Your task to perform on an android device: snooze an email in the gmail app Image 0: 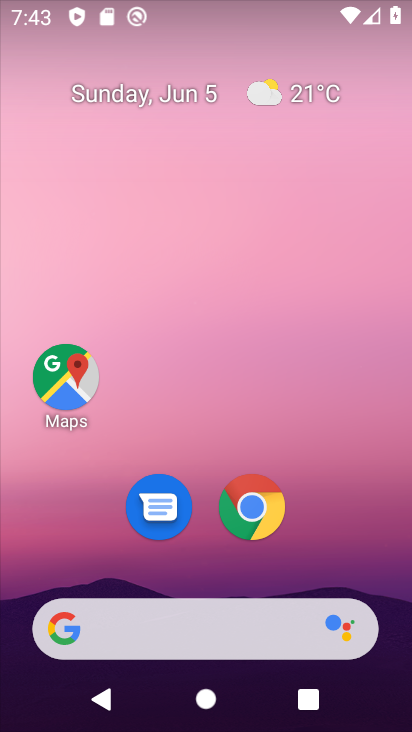
Step 0: drag from (349, 521) to (299, 25)
Your task to perform on an android device: snooze an email in the gmail app Image 1: 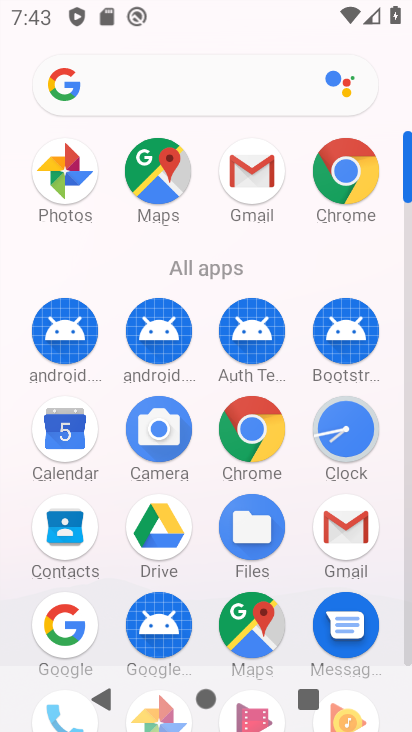
Step 1: click (346, 422)
Your task to perform on an android device: snooze an email in the gmail app Image 2: 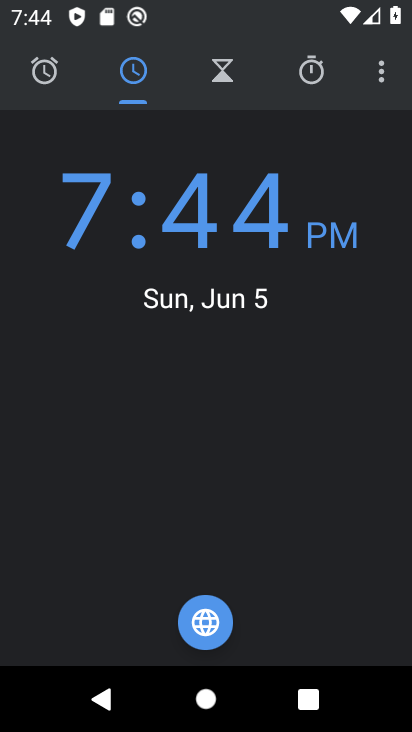
Step 2: press back button
Your task to perform on an android device: snooze an email in the gmail app Image 3: 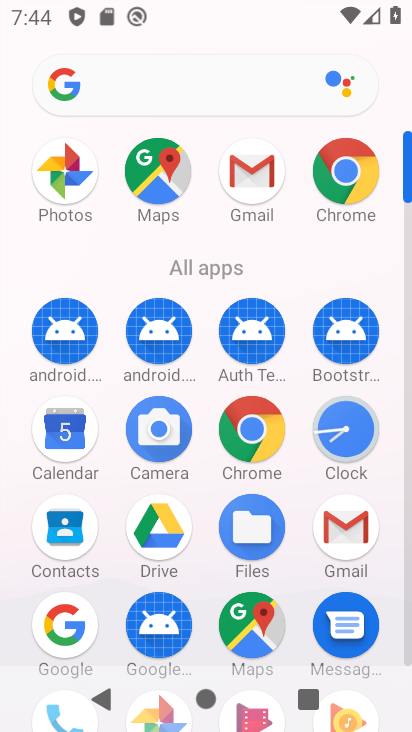
Step 3: click (252, 162)
Your task to perform on an android device: snooze an email in the gmail app Image 4: 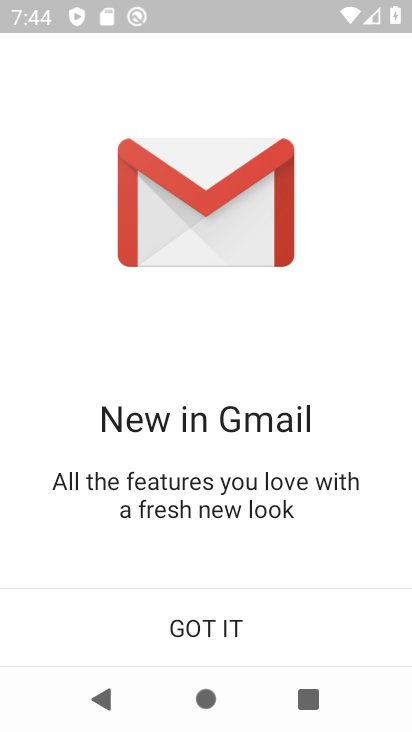
Step 4: click (208, 602)
Your task to perform on an android device: snooze an email in the gmail app Image 5: 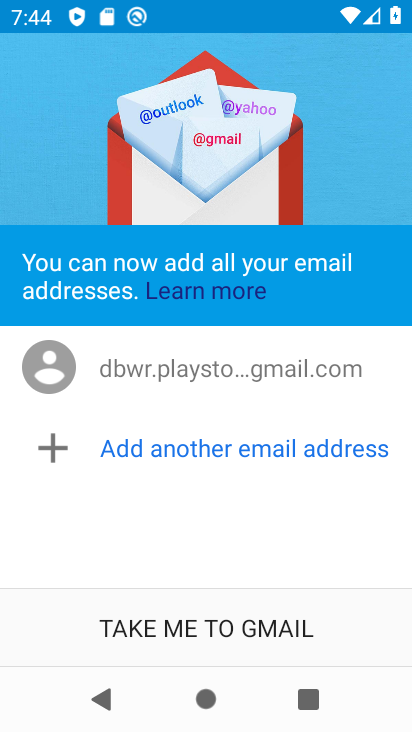
Step 5: click (212, 627)
Your task to perform on an android device: snooze an email in the gmail app Image 6: 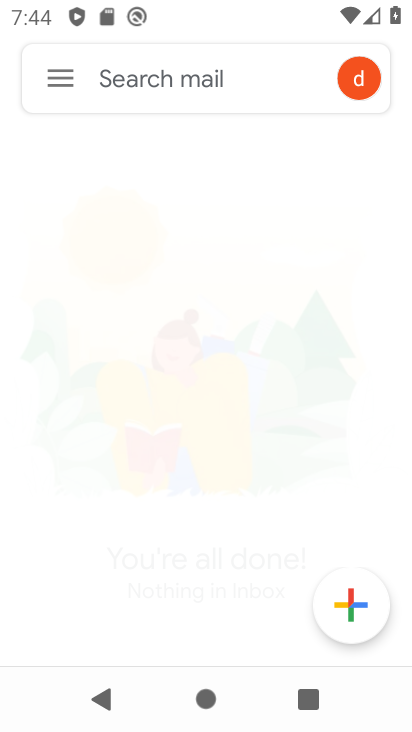
Step 6: click (69, 71)
Your task to perform on an android device: snooze an email in the gmail app Image 7: 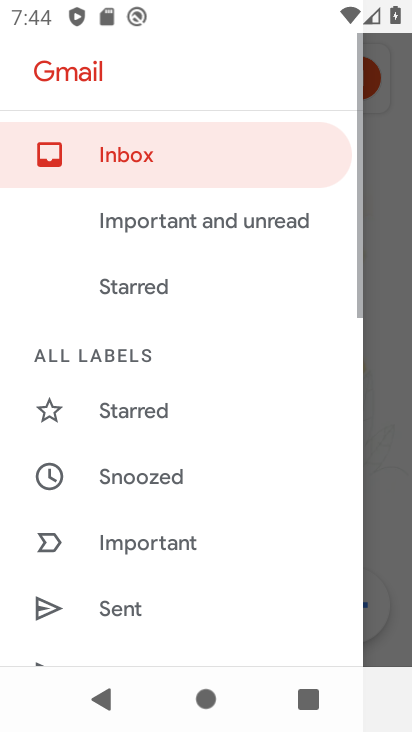
Step 7: drag from (254, 226) to (275, 571)
Your task to perform on an android device: snooze an email in the gmail app Image 8: 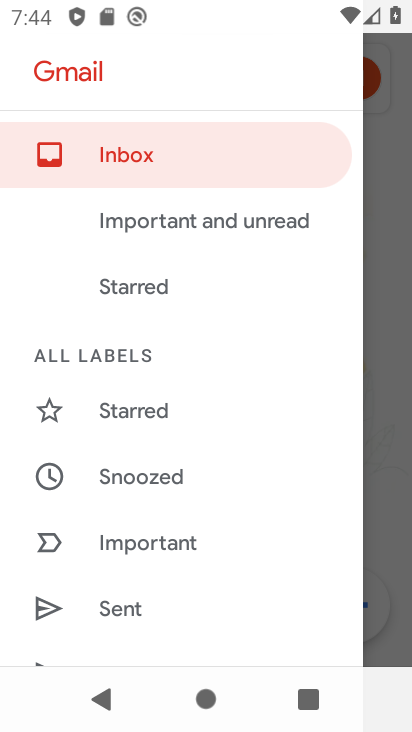
Step 8: click (179, 463)
Your task to perform on an android device: snooze an email in the gmail app Image 9: 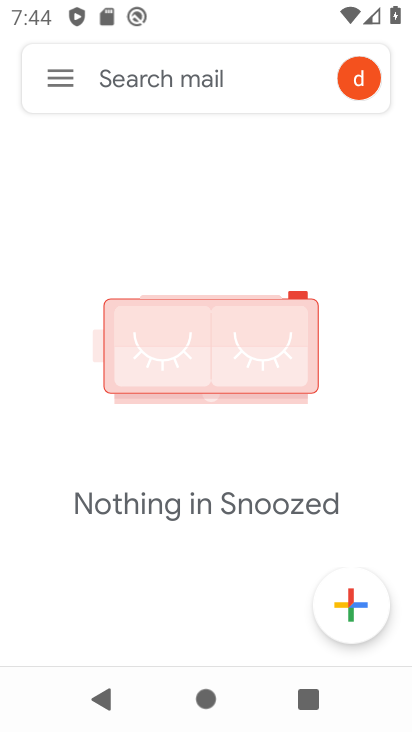
Step 9: task complete